Your task to perform on an android device: delete a single message in the gmail app Image 0: 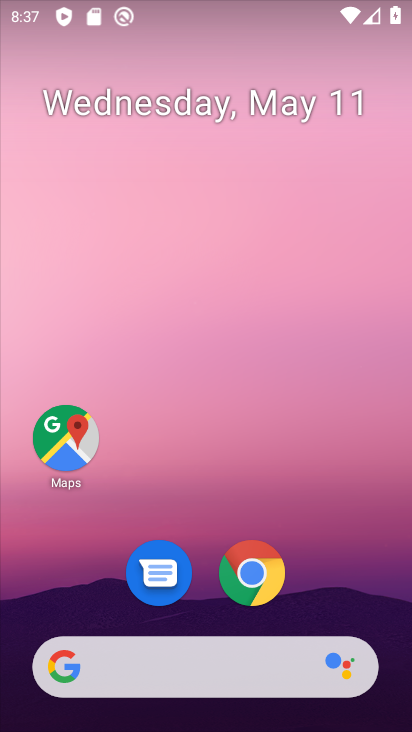
Step 0: drag from (366, 600) to (358, 72)
Your task to perform on an android device: delete a single message in the gmail app Image 1: 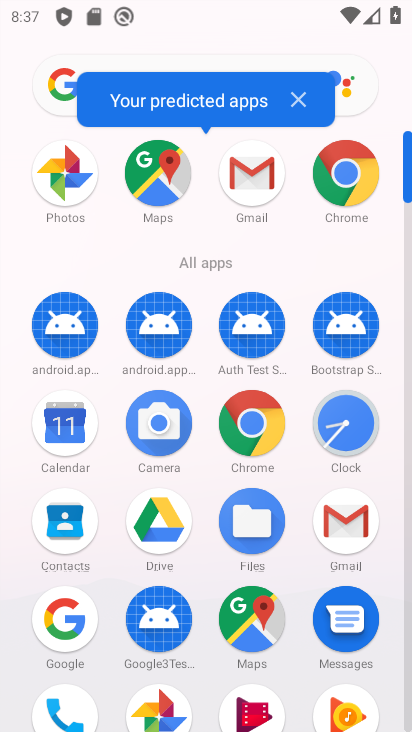
Step 1: click (252, 197)
Your task to perform on an android device: delete a single message in the gmail app Image 2: 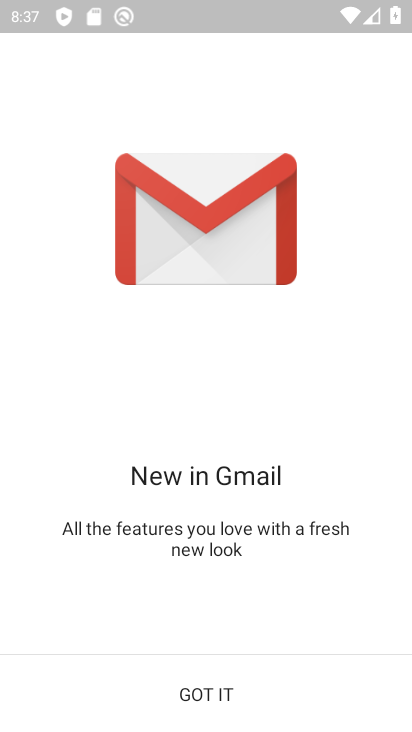
Step 2: click (221, 721)
Your task to perform on an android device: delete a single message in the gmail app Image 3: 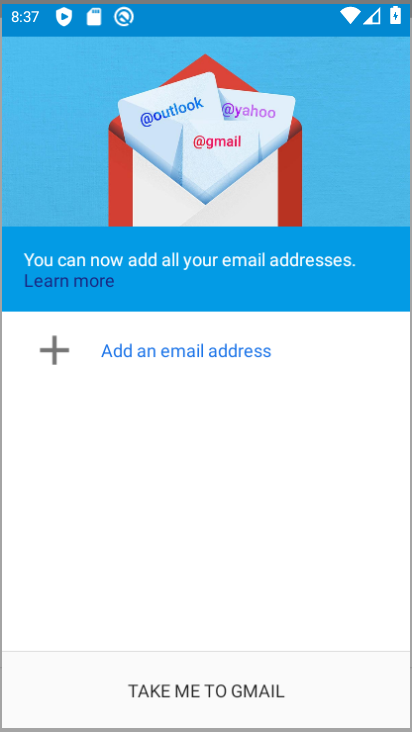
Step 3: click (218, 705)
Your task to perform on an android device: delete a single message in the gmail app Image 4: 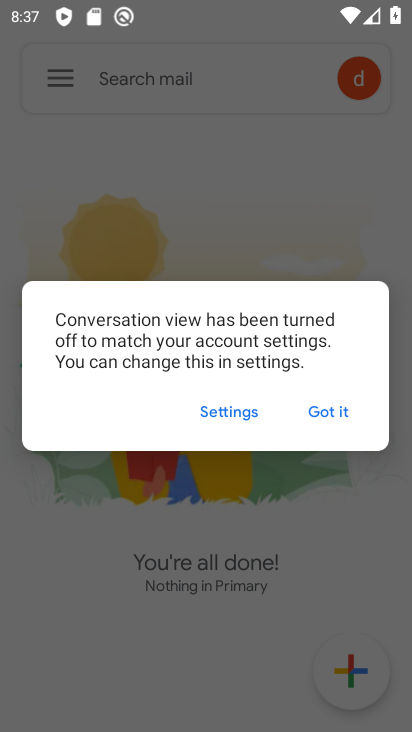
Step 4: click (344, 400)
Your task to perform on an android device: delete a single message in the gmail app Image 5: 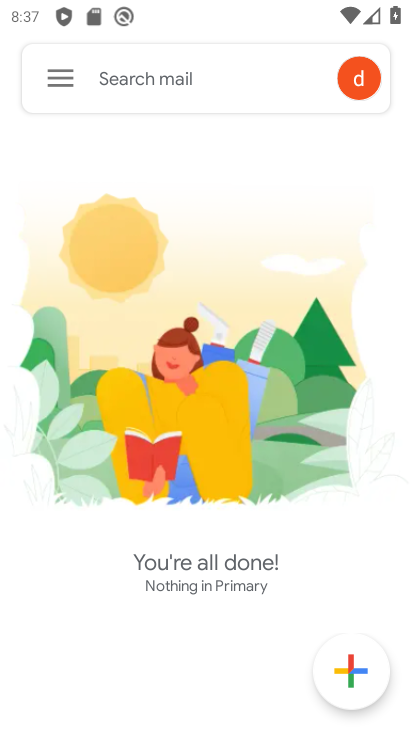
Step 5: click (61, 72)
Your task to perform on an android device: delete a single message in the gmail app Image 6: 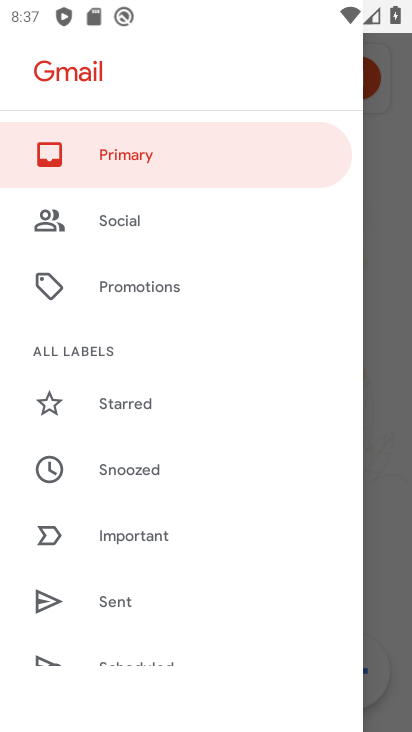
Step 6: drag from (164, 533) to (181, 187)
Your task to perform on an android device: delete a single message in the gmail app Image 7: 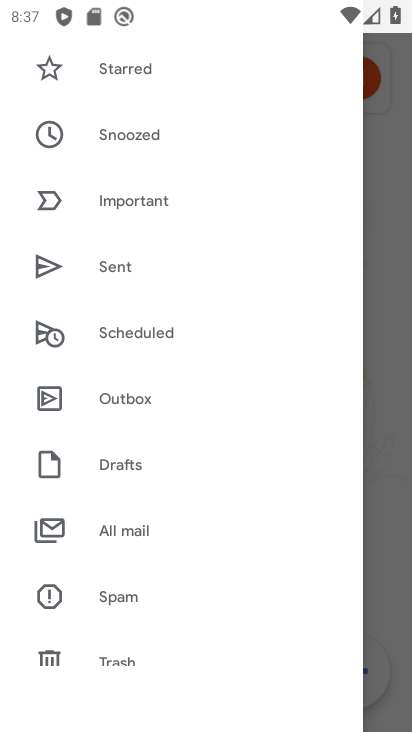
Step 7: click (186, 514)
Your task to perform on an android device: delete a single message in the gmail app Image 8: 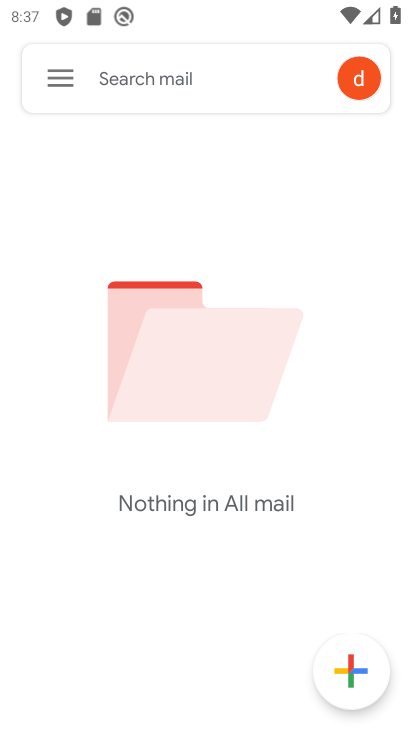
Step 8: task complete